Your task to perform on an android device: Is it going to rain tomorrow? Image 0: 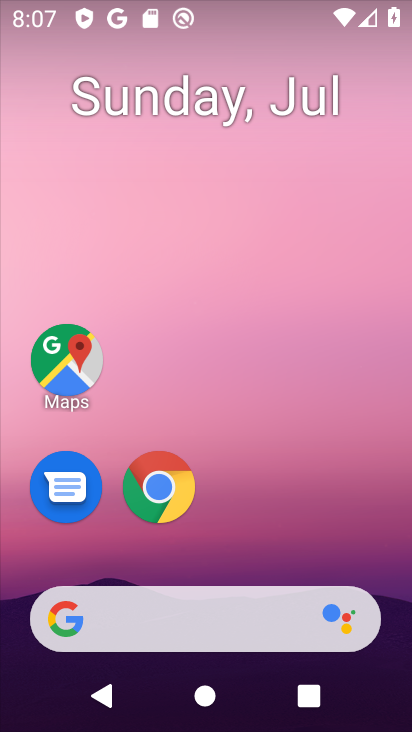
Step 0: drag from (240, 576) to (336, 0)
Your task to perform on an android device: Is it going to rain tomorrow? Image 1: 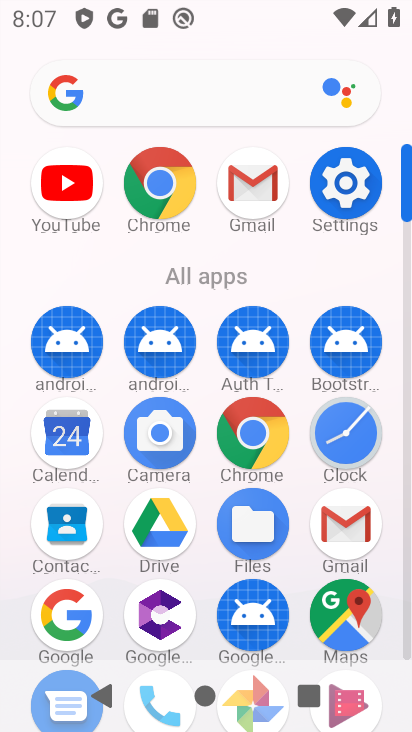
Step 1: click (171, 92)
Your task to perform on an android device: Is it going to rain tomorrow? Image 2: 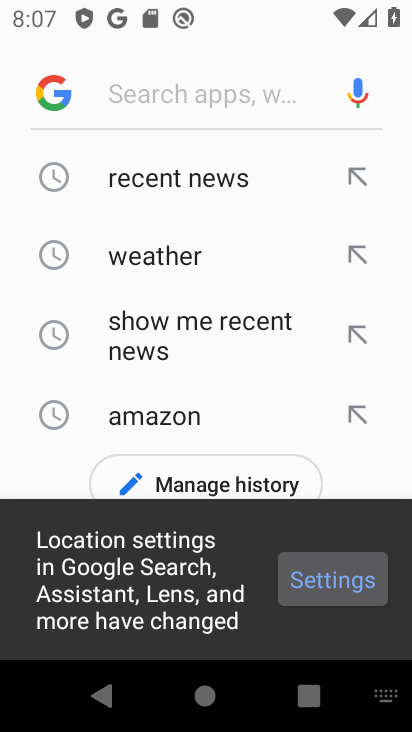
Step 2: click (182, 256)
Your task to perform on an android device: Is it going to rain tomorrow? Image 3: 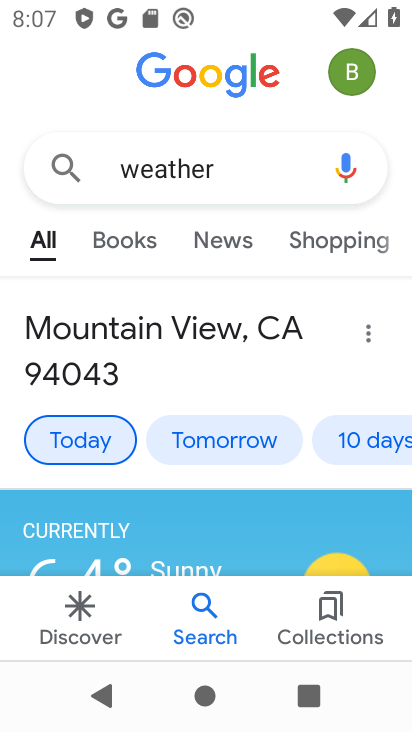
Step 3: click (226, 441)
Your task to perform on an android device: Is it going to rain tomorrow? Image 4: 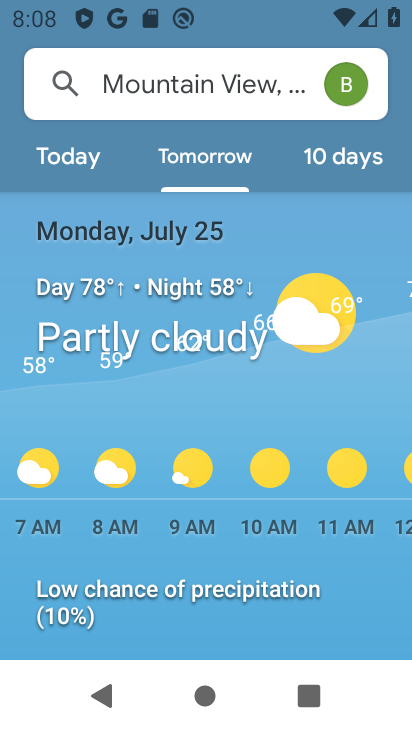
Step 4: task complete